Your task to perform on an android device: What's the weather like in San Francisco? Image 0: 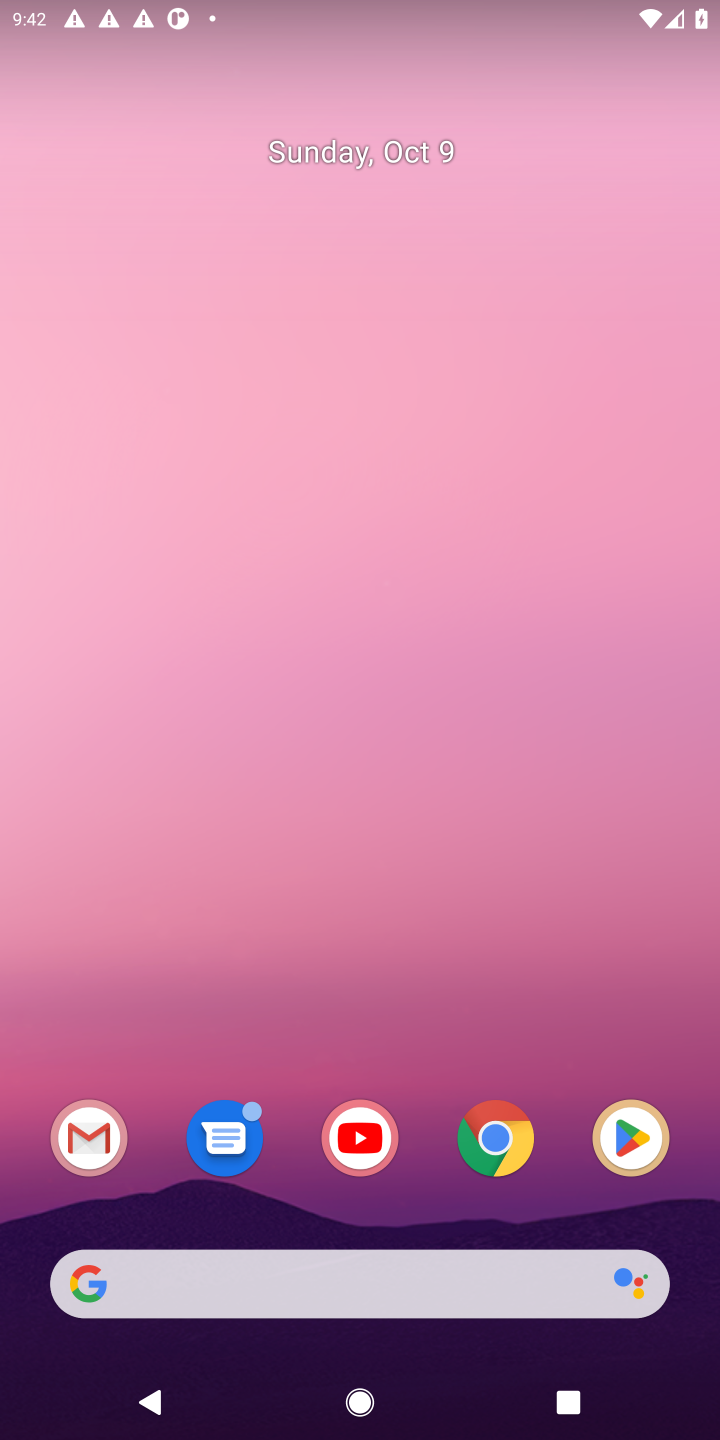
Step 0: click (194, 1289)
Your task to perform on an android device: What's the weather like in San Francisco? Image 1: 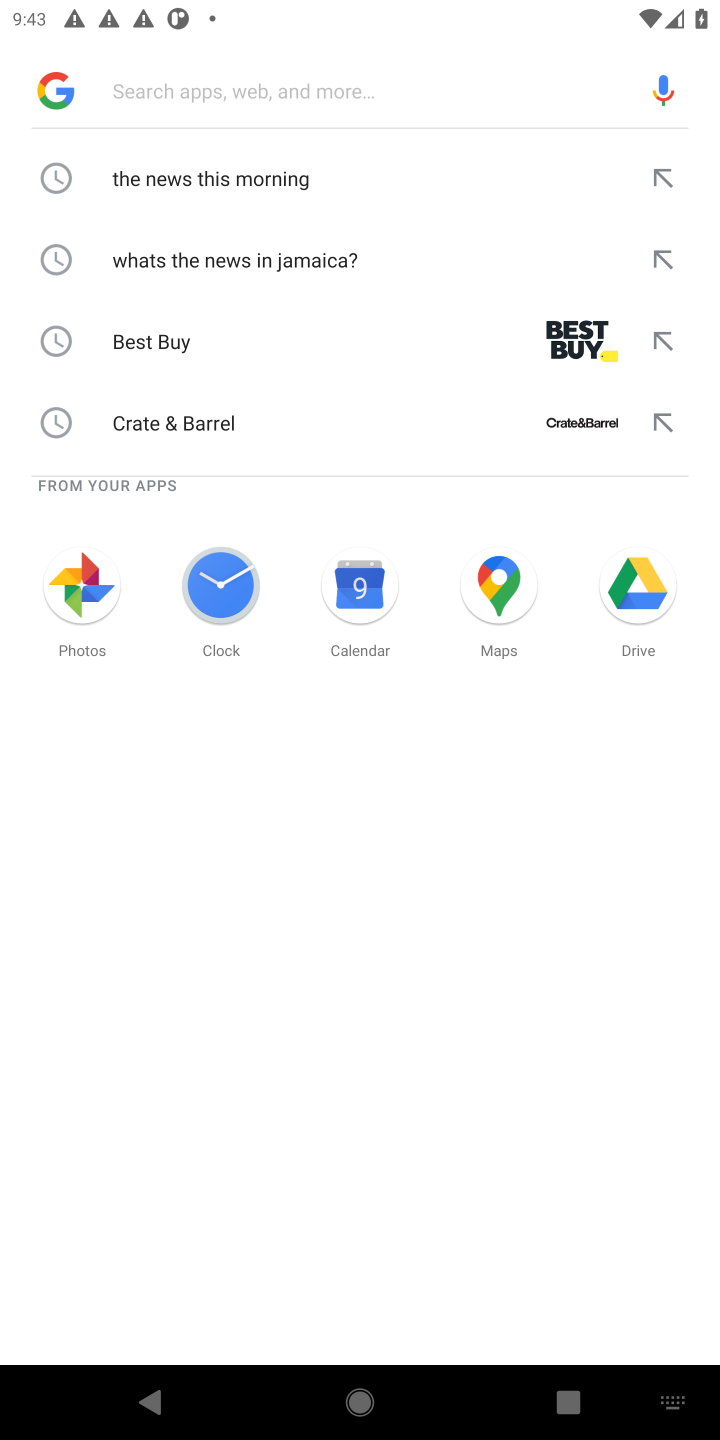
Step 1: type "the weather like in san francisco?"
Your task to perform on an android device: What's the weather like in San Francisco? Image 2: 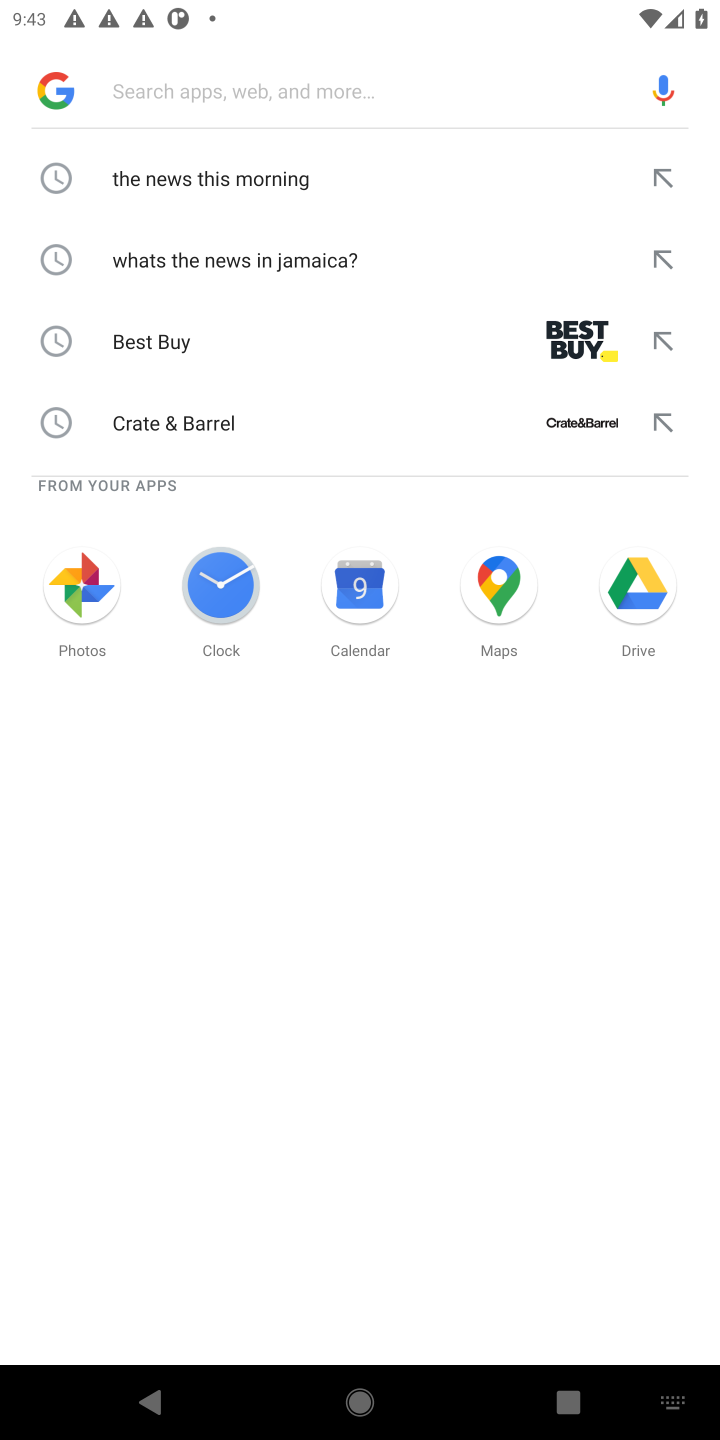
Step 2: click (345, 87)
Your task to perform on an android device: What's the weather like in San Francisco? Image 3: 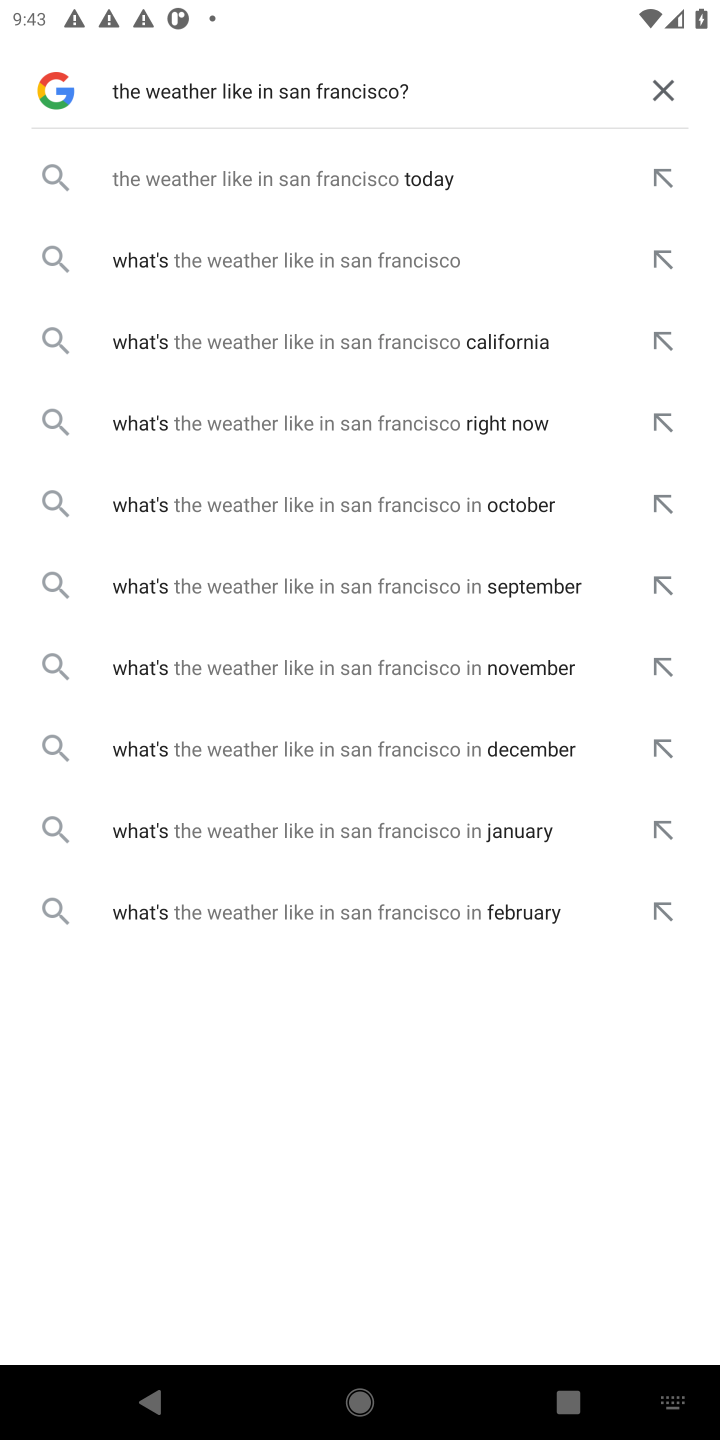
Step 3: click (345, 87)
Your task to perform on an android device: What's the weather like in San Francisco? Image 4: 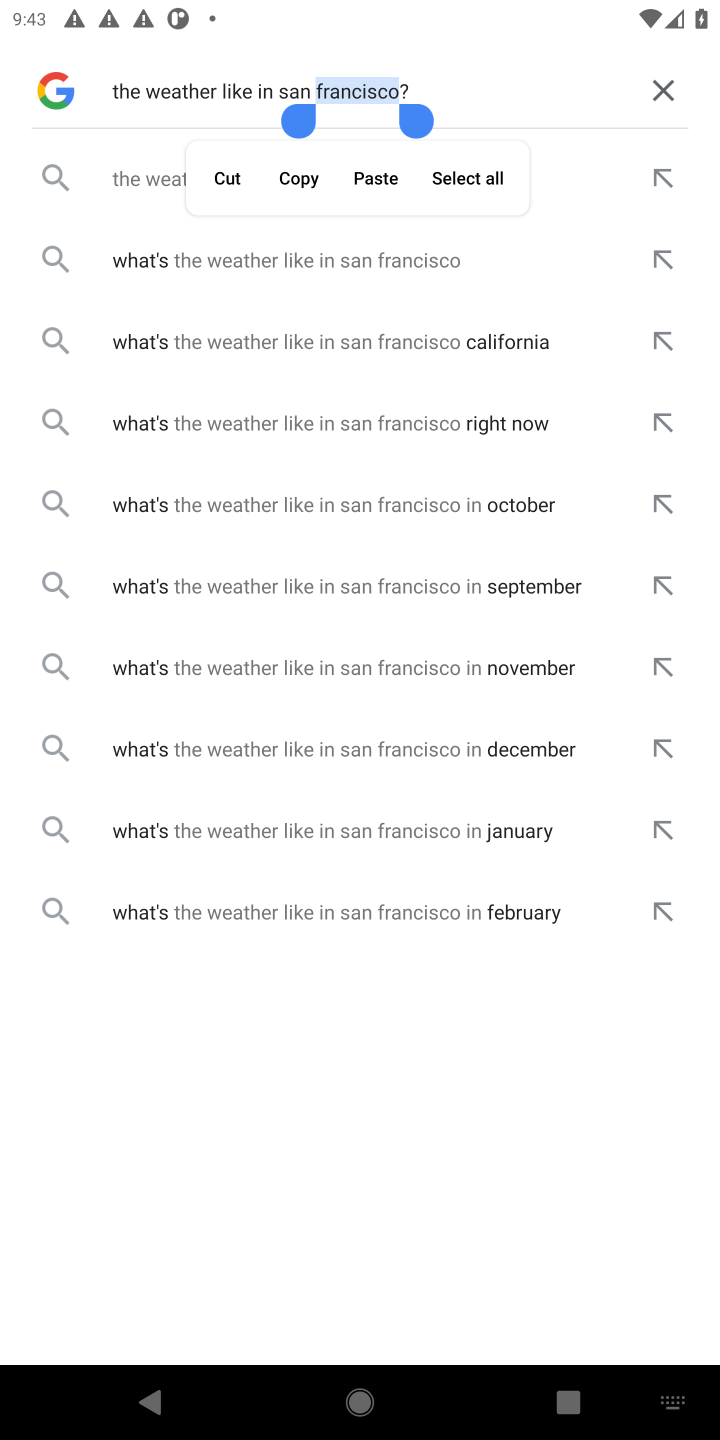
Step 4: drag from (678, 76) to (700, 433)
Your task to perform on an android device: What's the weather like in San Francisco? Image 5: 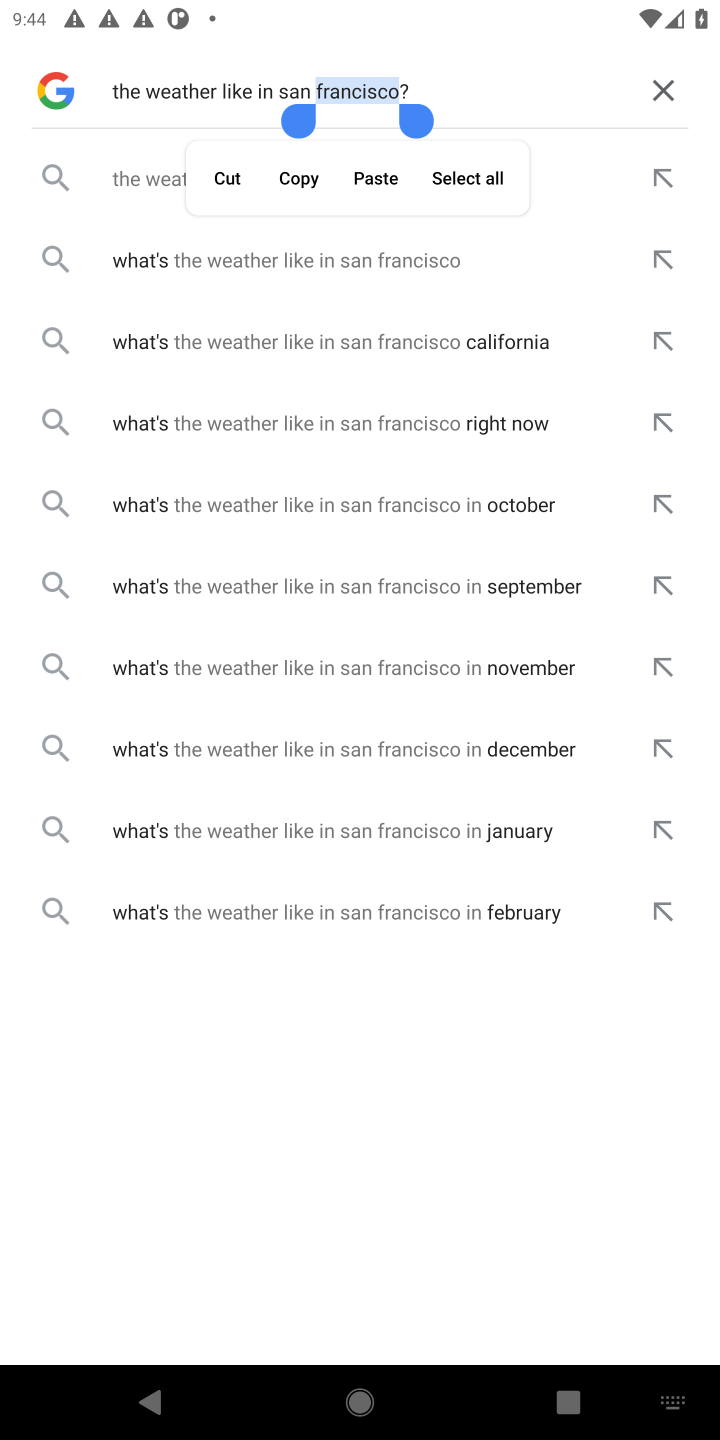
Step 5: click (329, 265)
Your task to perform on an android device: What's the weather like in San Francisco? Image 6: 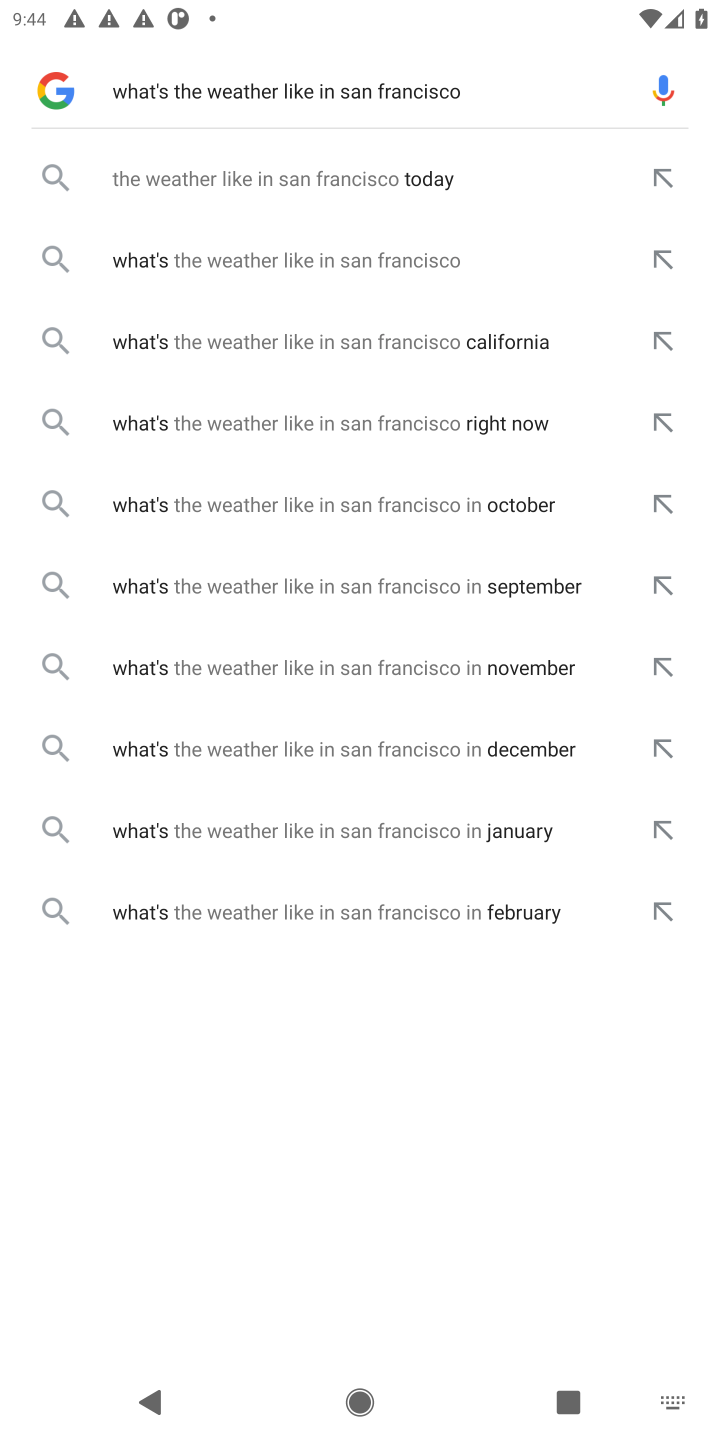
Step 6: task complete